Your task to perform on an android device: Open Maps and search for coffee Image 0: 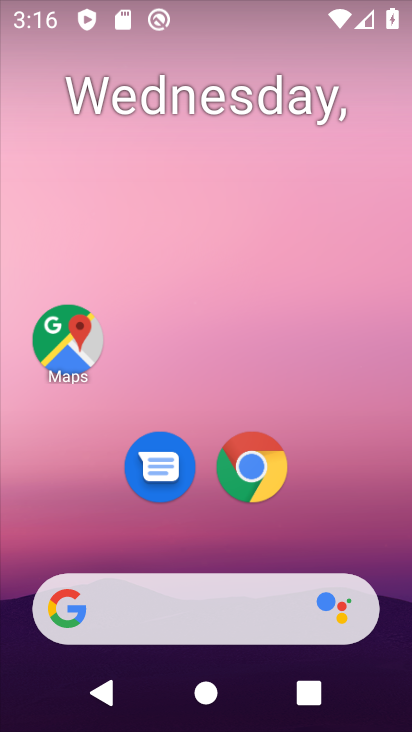
Step 0: click (61, 330)
Your task to perform on an android device: Open Maps and search for coffee Image 1: 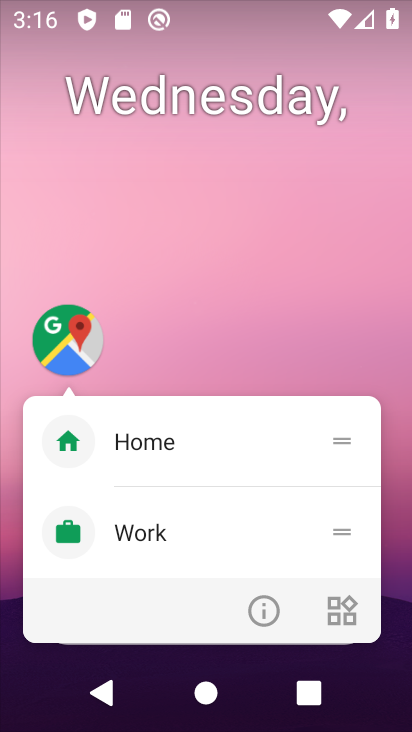
Step 1: click (58, 332)
Your task to perform on an android device: Open Maps and search for coffee Image 2: 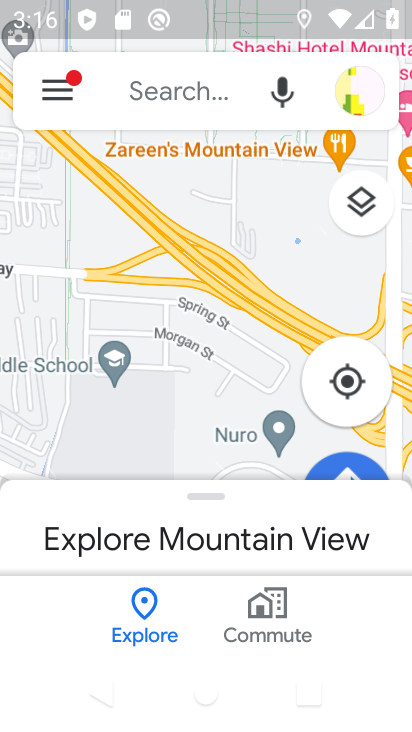
Step 2: click (145, 86)
Your task to perform on an android device: Open Maps and search for coffee Image 3: 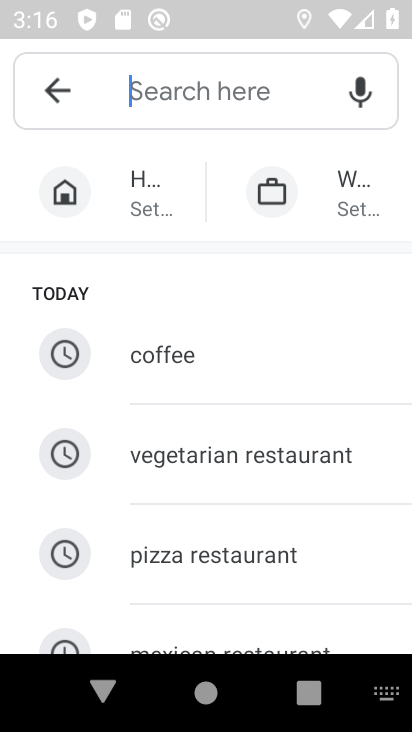
Step 3: type "coffee"
Your task to perform on an android device: Open Maps and search for coffee Image 4: 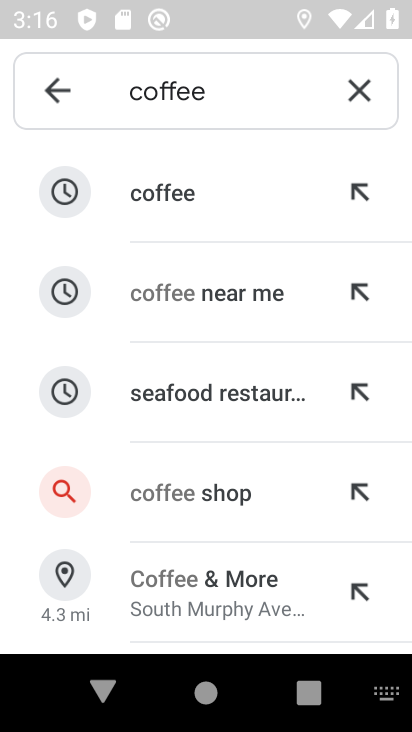
Step 4: click (149, 198)
Your task to perform on an android device: Open Maps and search for coffee Image 5: 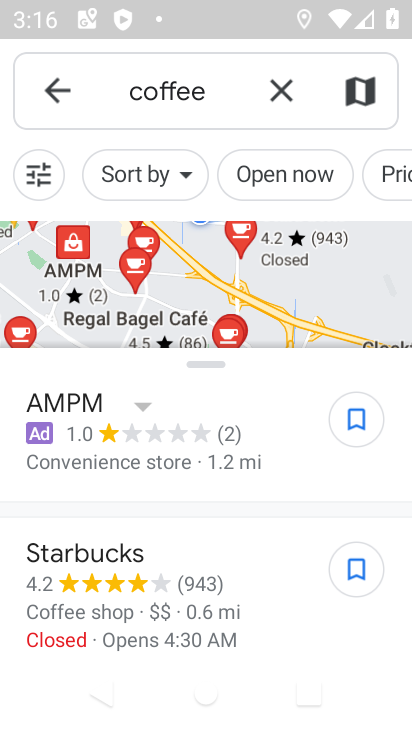
Step 5: task complete